Your task to perform on an android device: toggle data saver in the chrome app Image 0: 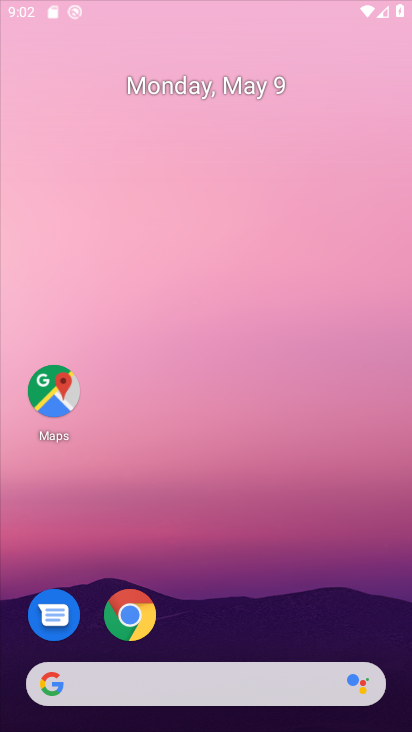
Step 0: click (289, 283)
Your task to perform on an android device: toggle data saver in the chrome app Image 1: 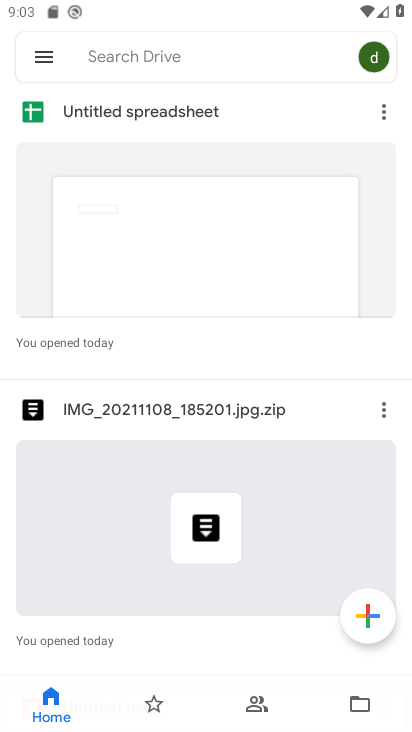
Step 1: press back button
Your task to perform on an android device: toggle data saver in the chrome app Image 2: 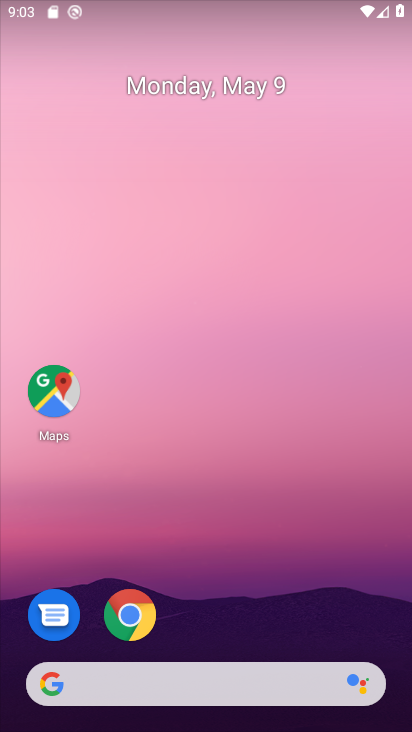
Step 2: drag from (231, 702) to (192, 254)
Your task to perform on an android device: toggle data saver in the chrome app Image 3: 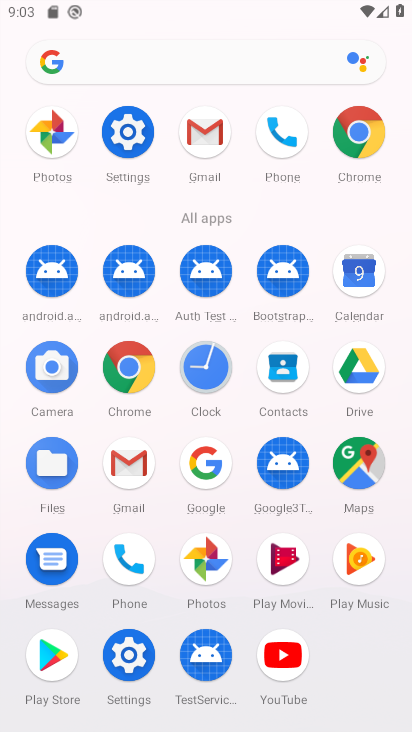
Step 3: click (350, 135)
Your task to perform on an android device: toggle data saver in the chrome app Image 4: 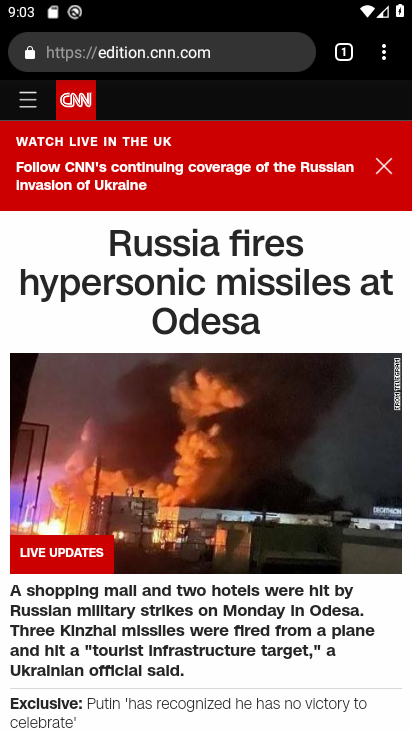
Step 4: click (389, 67)
Your task to perform on an android device: toggle data saver in the chrome app Image 5: 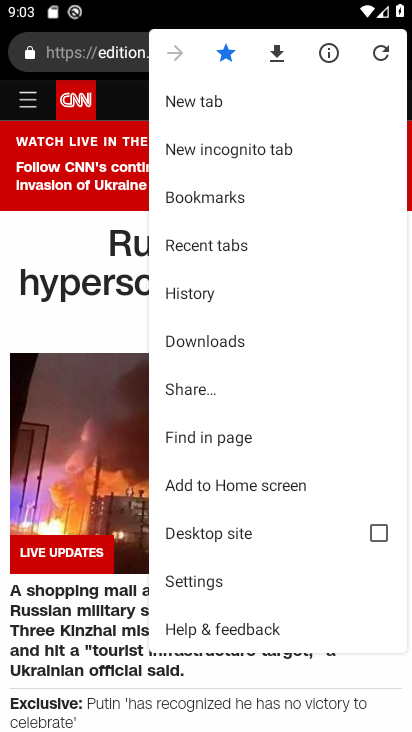
Step 5: click (197, 577)
Your task to perform on an android device: toggle data saver in the chrome app Image 6: 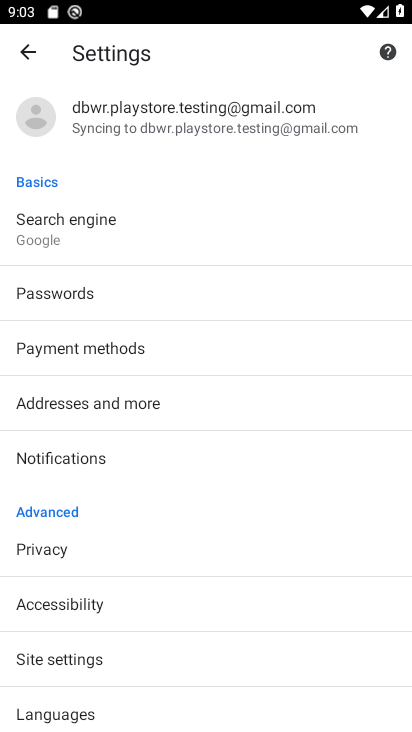
Step 6: drag from (154, 614) to (139, 377)
Your task to perform on an android device: toggle data saver in the chrome app Image 7: 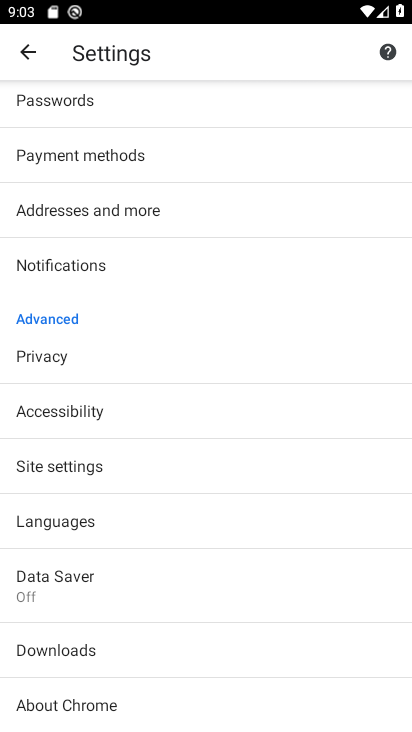
Step 7: click (55, 579)
Your task to perform on an android device: toggle data saver in the chrome app Image 8: 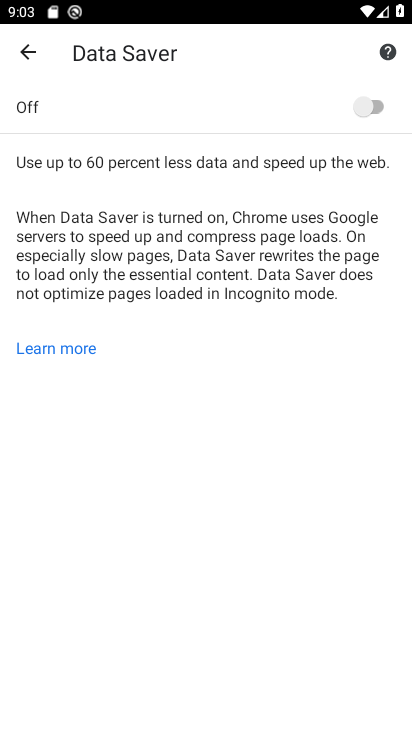
Step 8: task complete